Your task to perform on an android device: turn on bluetooth scan Image 0: 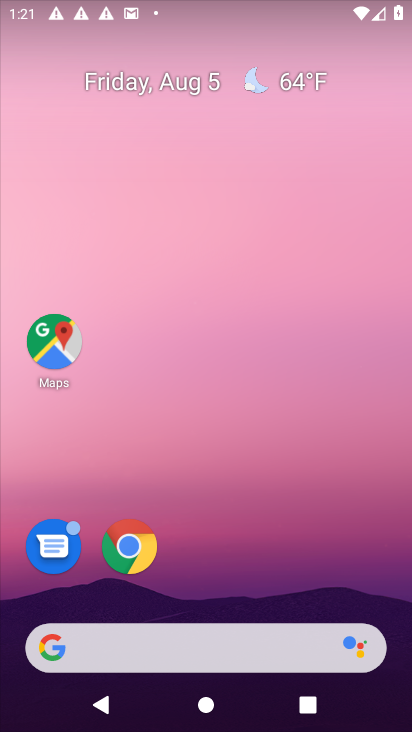
Step 0: press home button
Your task to perform on an android device: turn on bluetooth scan Image 1: 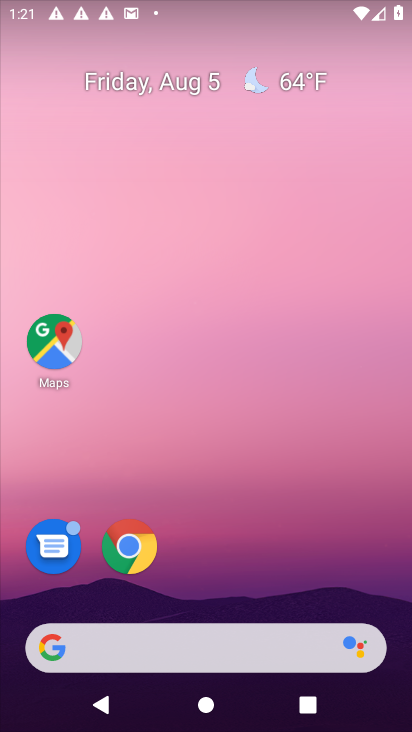
Step 1: drag from (221, 592) to (230, 64)
Your task to perform on an android device: turn on bluetooth scan Image 2: 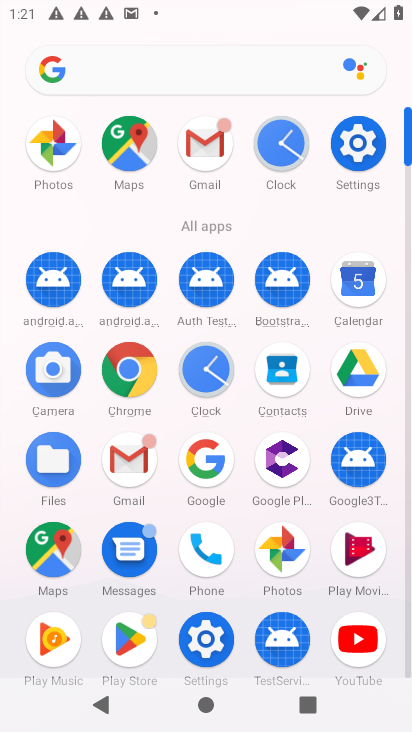
Step 2: click (356, 136)
Your task to perform on an android device: turn on bluetooth scan Image 3: 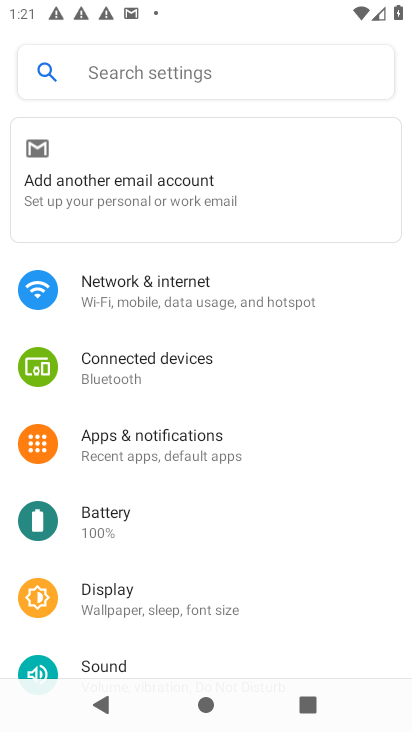
Step 3: drag from (207, 643) to (260, 38)
Your task to perform on an android device: turn on bluetooth scan Image 4: 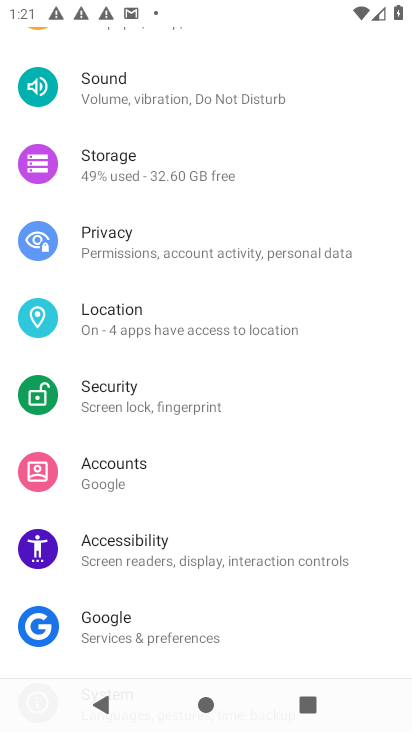
Step 4: click (155, 310)
Your task to perform on an android device: turn on bluetooth scan Image 5: 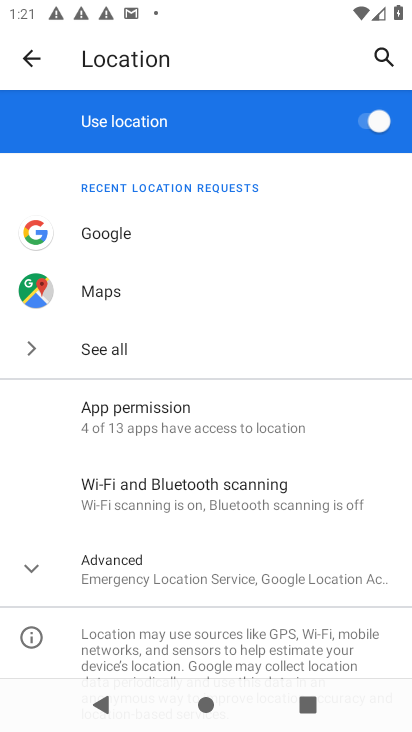
Step 5: click (161, 486)
Your task to perform on an android device: turn on bluetooth scan Image 6: 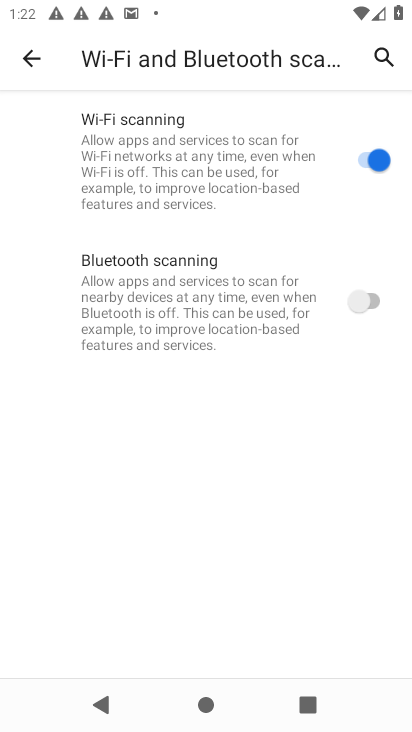
Step 6: click (372, 294)
Your task to perform on an android device: turn on bluetooth scan Image 7: 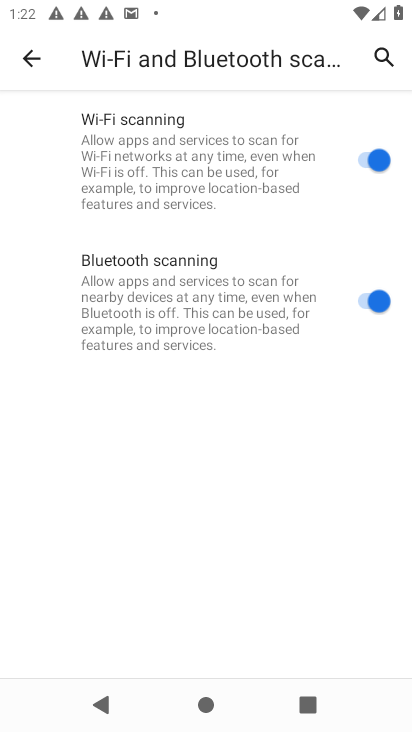
Step 7: task complete